Your task to perform on an android device: see creations saved in the google photos Image 0: 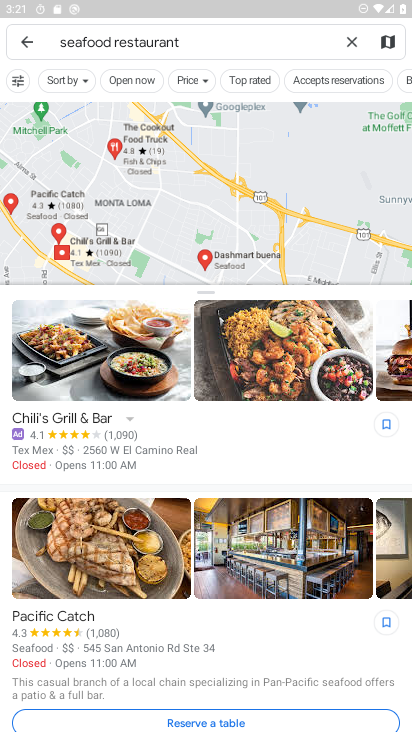
Step 0: press home button
Your task to perform on an android device: see creations saved in the google photos Image 1: 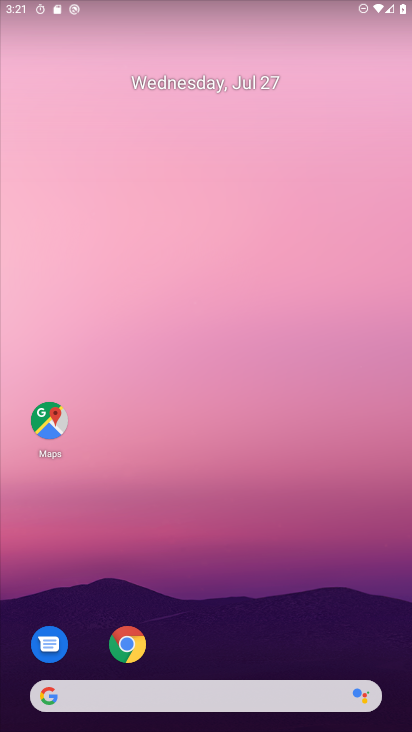
Step 1: drag from (191, 623) to (154, 209)
Your task to perform on an android device: see creations saved in the google photos Image 2: 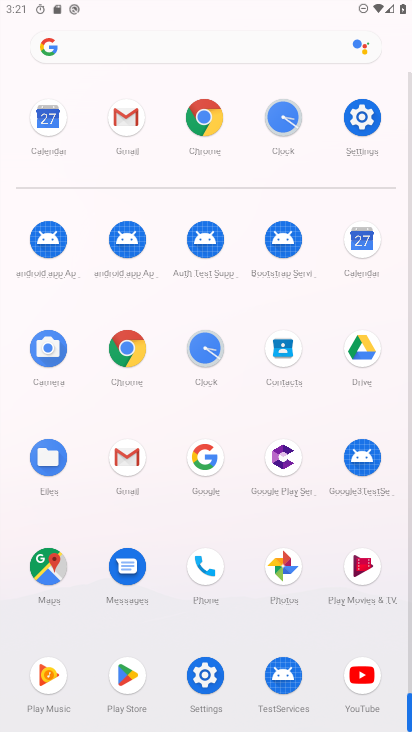
Step 2: click (285, 564)
Your task to perform on an android device: see creations saved in the google photos Image 3: 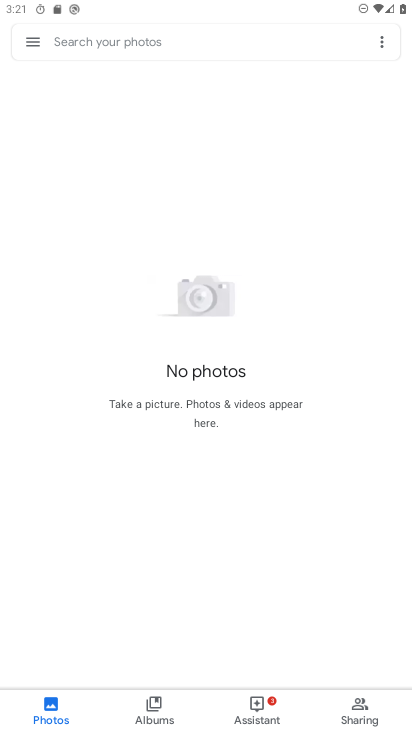
Step 3: click (172, 49)
Your task to perform on an android device: see creations saved in the google photos Image 4: 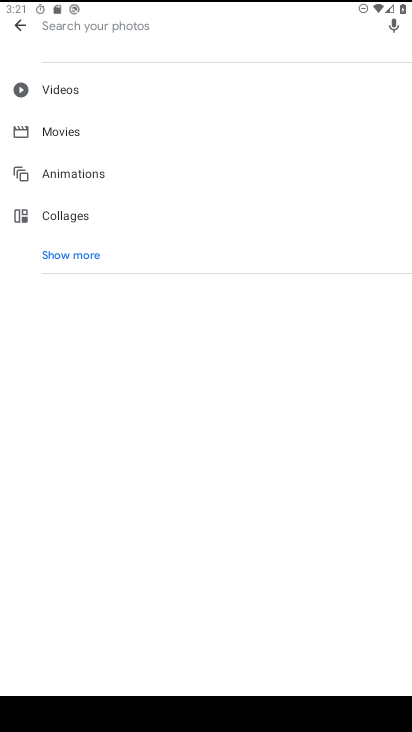
Step 4: type "creations"
Your task to perform on an android device: see creations saved in the google photos Image 5: 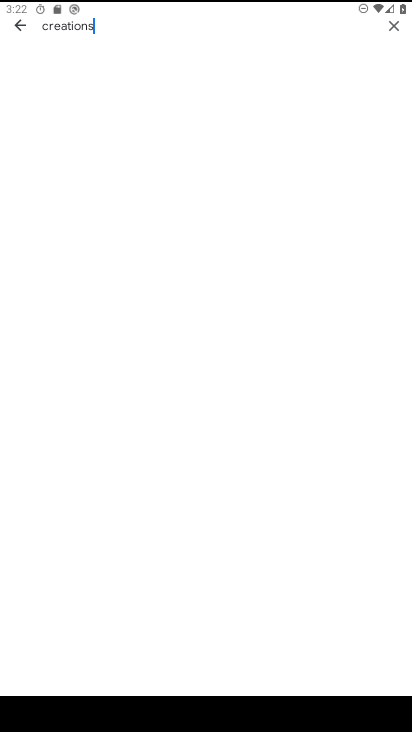
Step 5: task complete